Your task to perform on an android device: show emergency info Image 0: 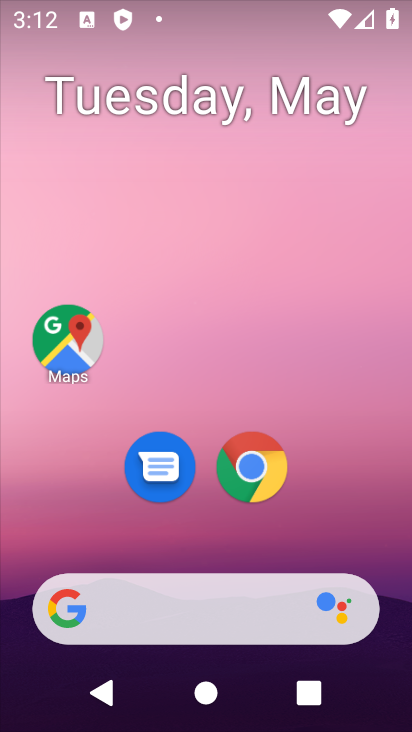
Step 0: task complete